Your task to perform on an android device: Open settings on Google Maps Image 0: 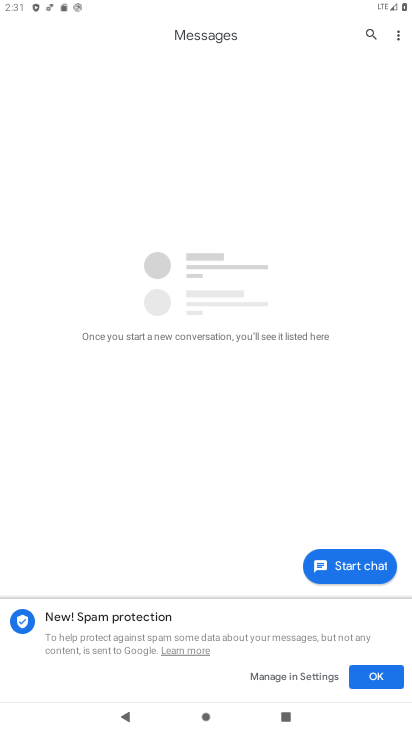
Step 0: press home button
Your task to perform on an android device: Open settings on Google Maps Image 1: 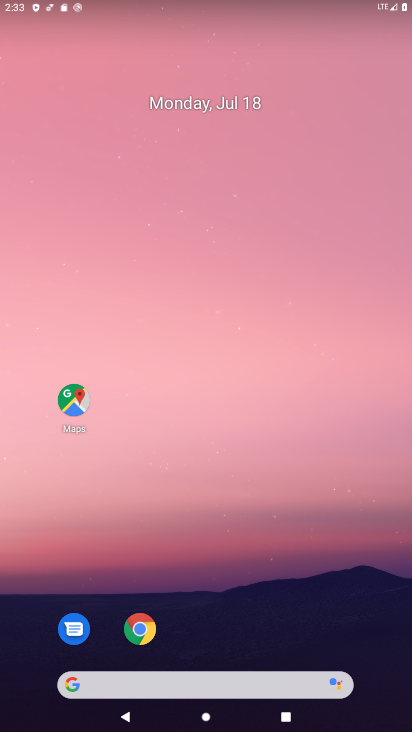
Step 1: drag from (169, 689) to (161, 261)
Your task to perform on an android device: Open settings on Google Maps Image 2: 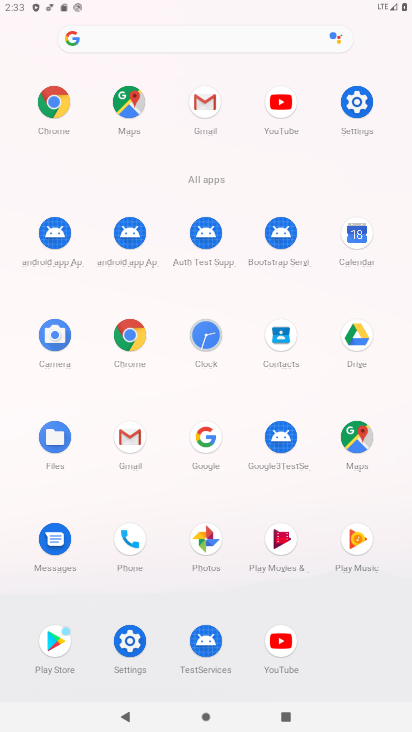
Step 2: click (357, 434)
Your task to perform on an android device: Open settings on Google Maps Image 3: 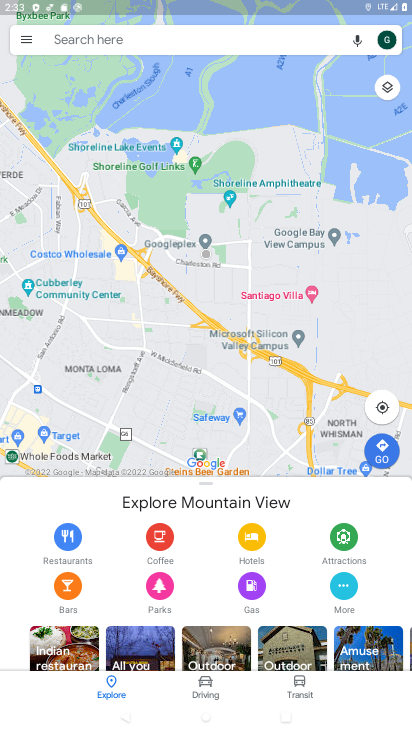
Step 3: click (29, 33)
Your task to perform on an android device: Open settings on Google Maps Image 4: 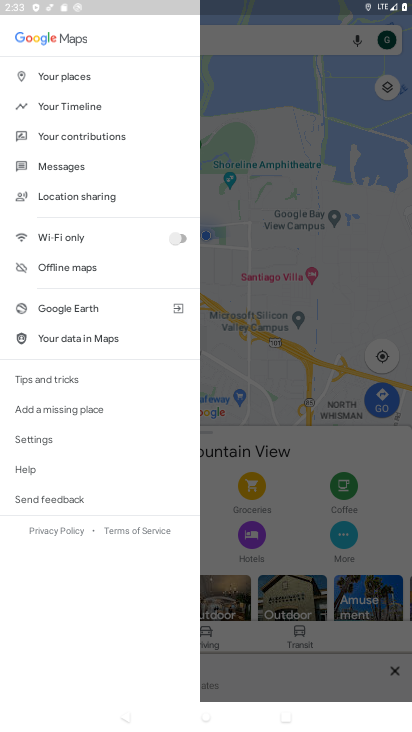
Step 4: click (30, 441)
Your task to perform on an android device: Open settings on Google Maps Image 5: 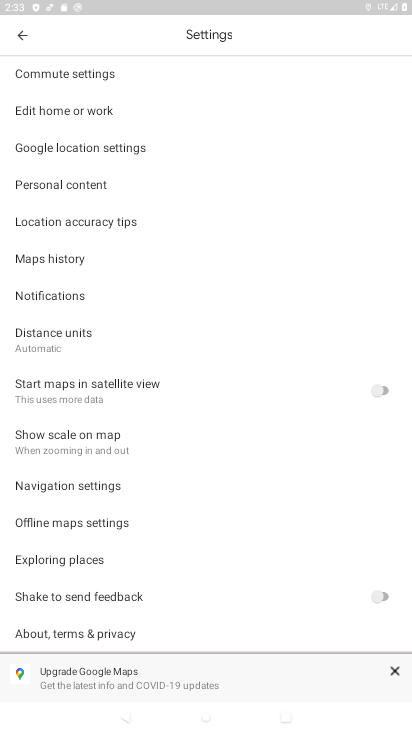
Step 5: task complete